Your task to perform on an android device: What's a good restaurant in Sacramento? Image 0: 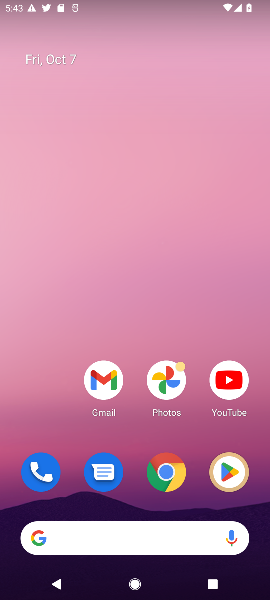
Step 0: click (171, 479)
Your task to perform on an android device: What's a good restaurant in Sacramento? Image 1: 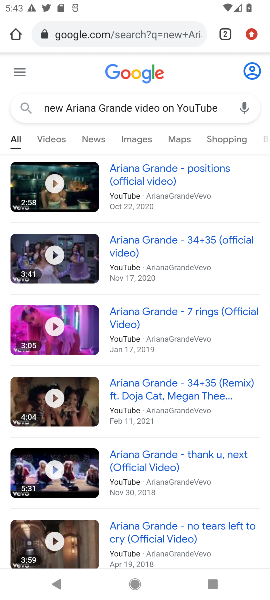
Step 1: click (162, 35)
Your task to perform on an android device: What's a good restaurant in Sacramento? Image 2: 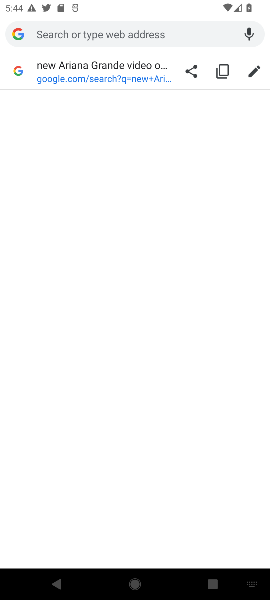
Step 2: type "good restaurant in Sacramento"
Your task to perform on an android device: What's a good restaurant in Sacramento? Image 3: 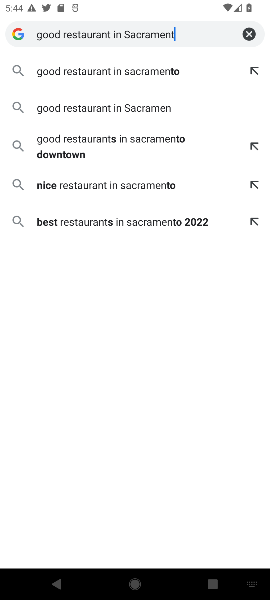
Step 3: type ""
Your task to perform on an android device: What's a good restaurant in Sacramento? Image 4: 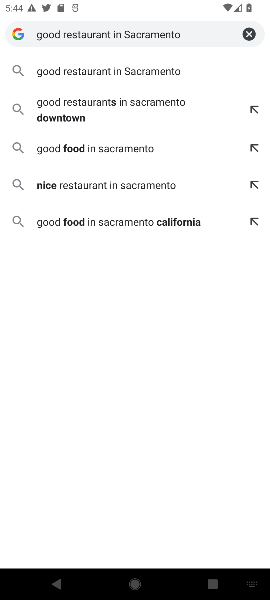
Step 4: click (157, 70)
Your task to perform on an android device: What's a good restaurant in Sacramento? Image 5: 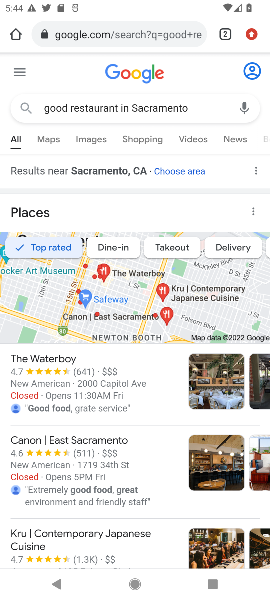
Step 5: drag from (121, 387) to (80, 225)
Your task to perform on an android device: What's a good restaurant in Sacramento? Image 6: 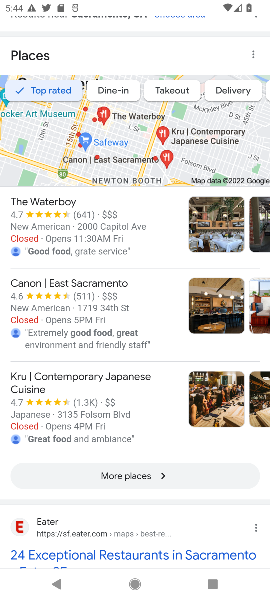
Step 6: click (137, 476)
Your task to perform on an android device: What's a good restaurant in Sacramento? Image 7: 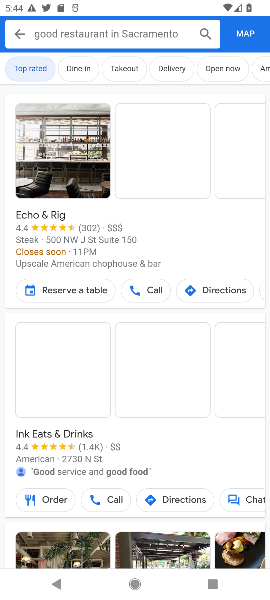
Step 7: task complete